Your task to perform on an android device: Turn on the flashlight Image 0: 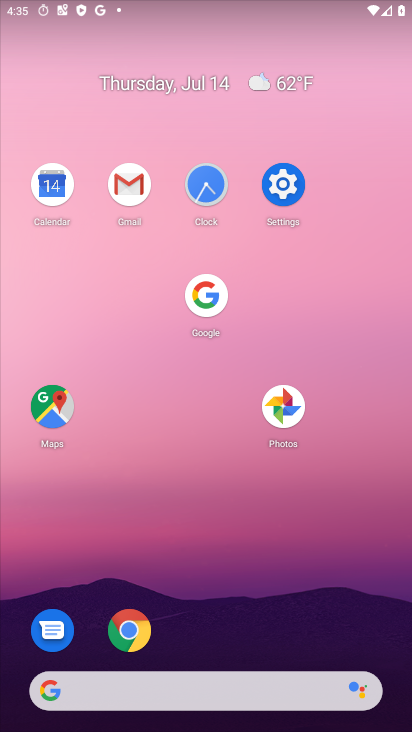
Step 0: drag from (286, 1) to (312, 492)
Your task to perform on an android device: Turn on the flashlight Image 1: 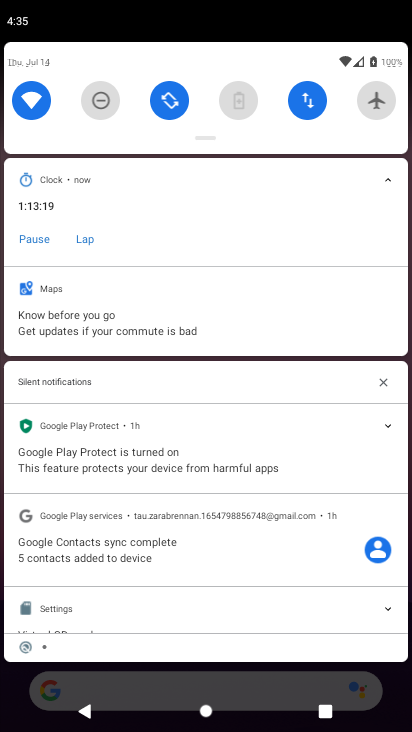
Step 1: task complete